Your task to perform on an android device: open chrome privacy settings Image 0: 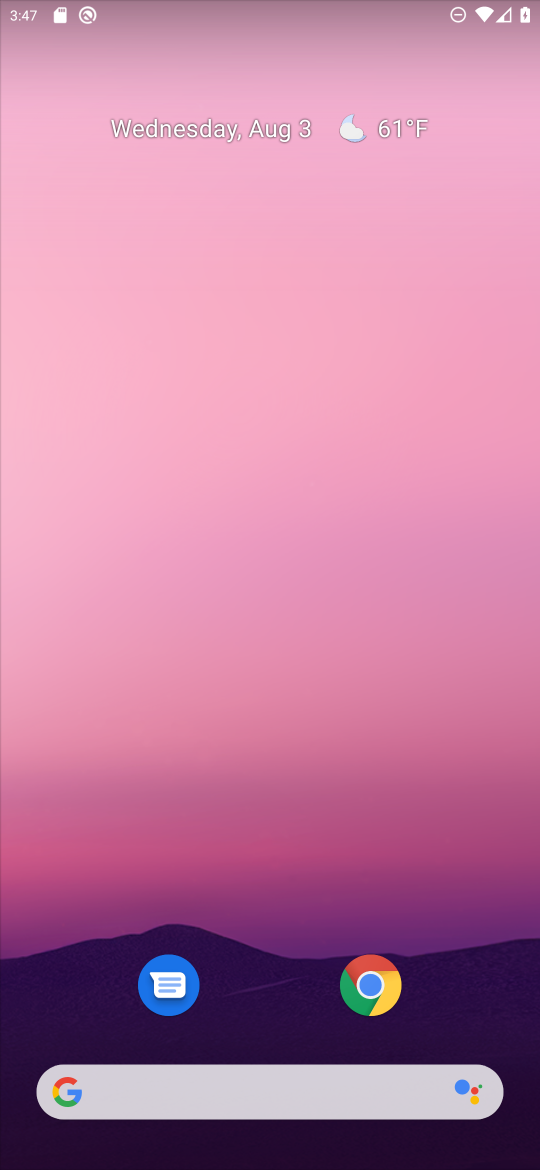
Step 0: press home button
Your task to perform on an android device: open chrome privacy settings Image 1: 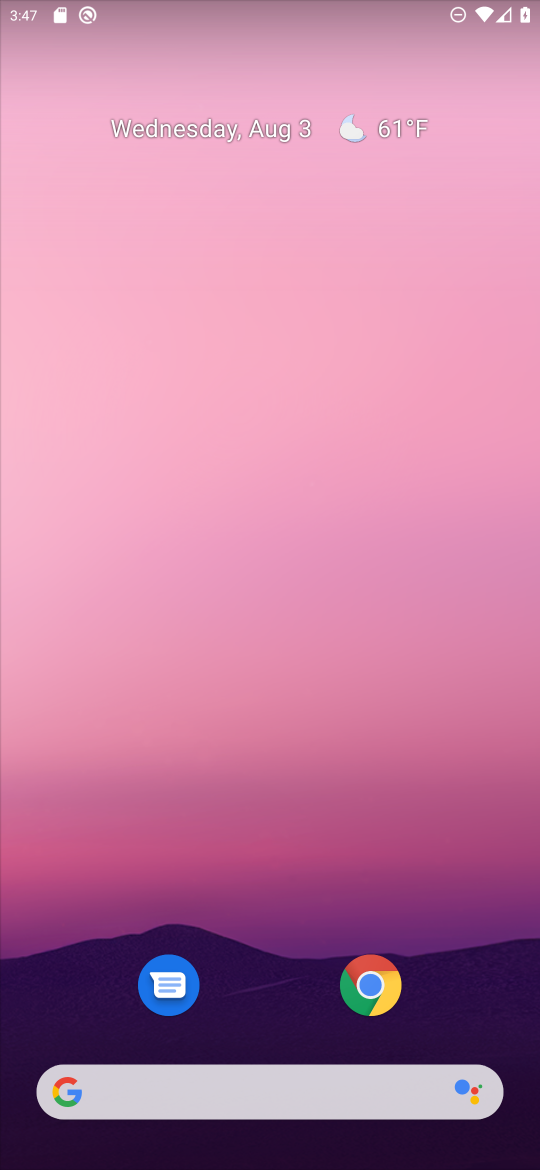
Step 1: click (365, 992)
Your task to perform on an android device: open chrome privacy settings Image 2: 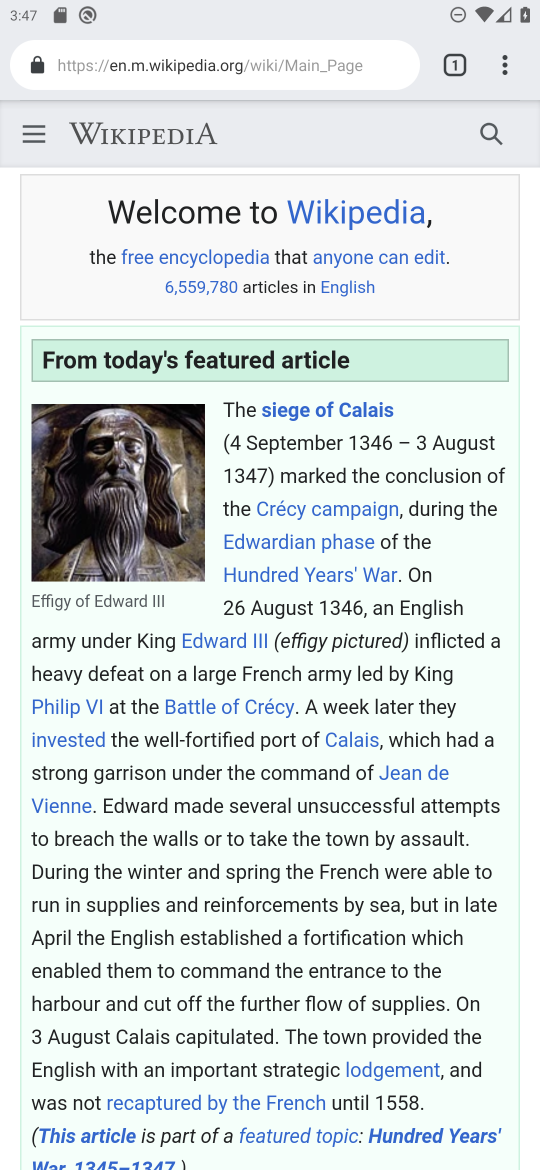
Step 2: click (504, 74)
Your task to perform on an android device: open chrome privacy settings Image 3: 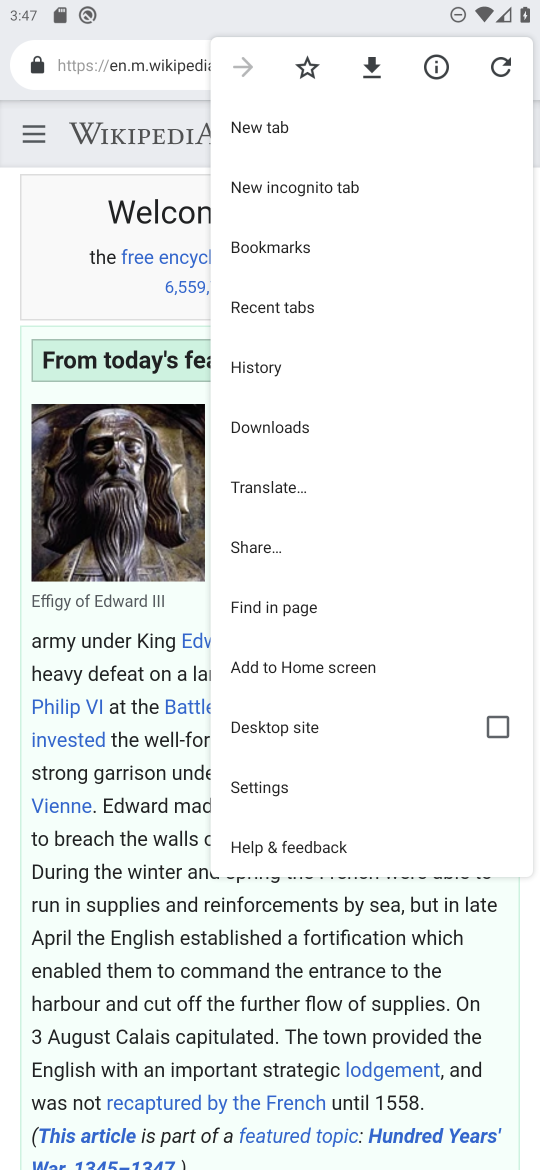
Step 3: click (262, 801)
Your task to perform on an android device: open chrome privacy settings Image 4: 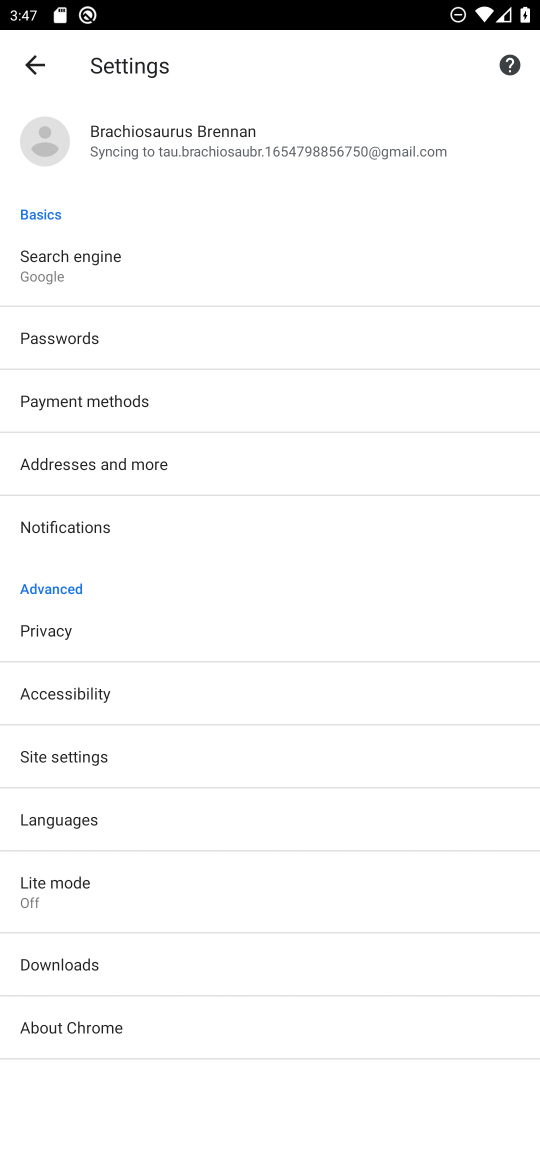
Step 4: click (143, 632)
Your task to perform on an android device: open chrome privacy settings Image 5: 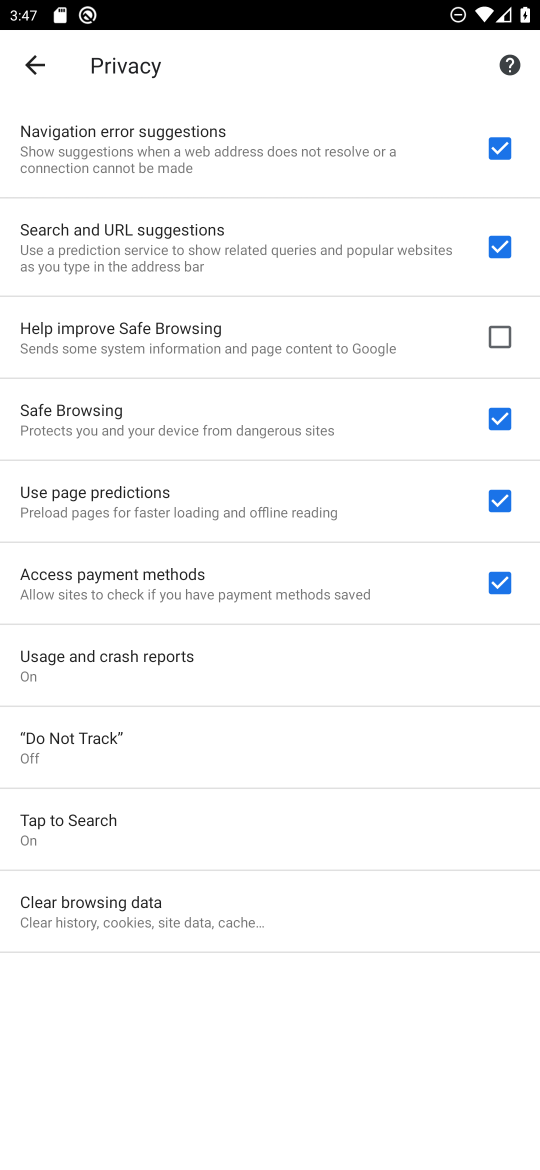
Step 5: task complete